Your task to perform on an android device: change timer sound Image 0: 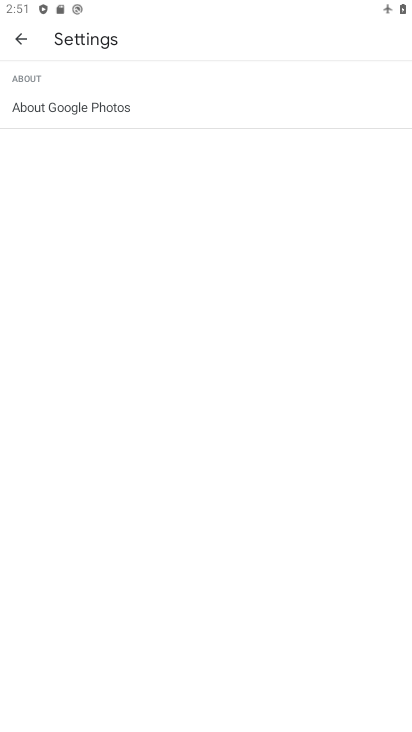
Step 0: press home button
Your task to perform on an android device: change timer sound Image 1: 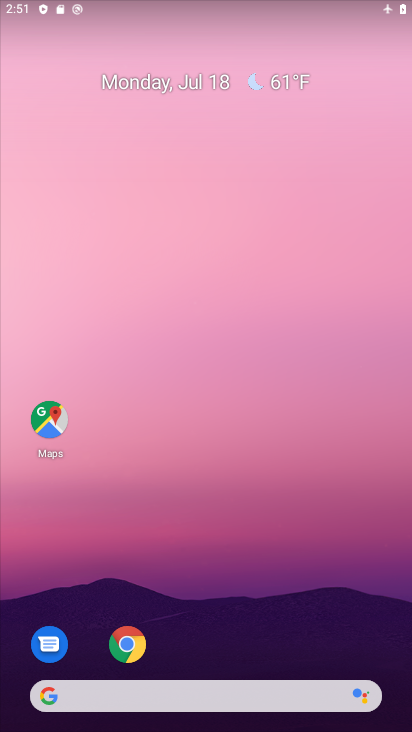
Step 1: drag from (330, 649) to (400, 168)
Your task to perform on an android device: change timer sound Image 2: 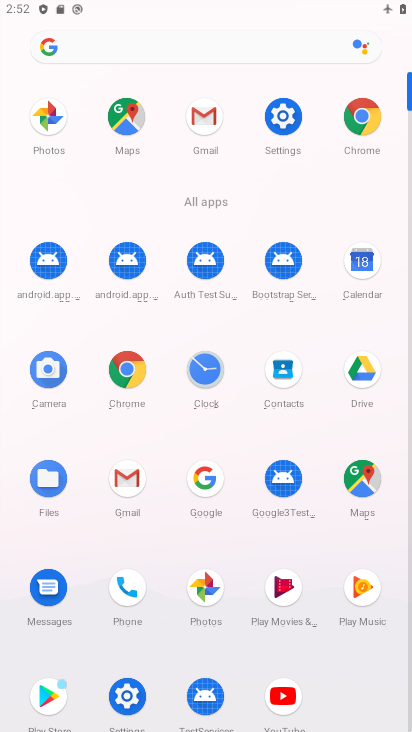
Step 2: click (213, 365)
Your task to perform on an android device: change timer sound Image 3: 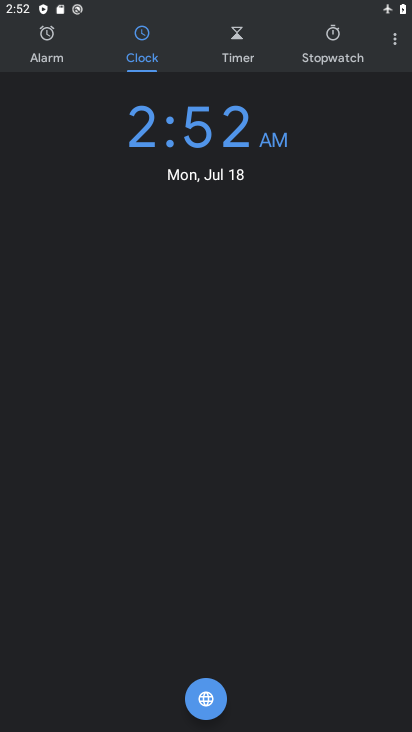
Step 3: click (396, 38)
Your task to perform on an android device: change timer sound Image 4: 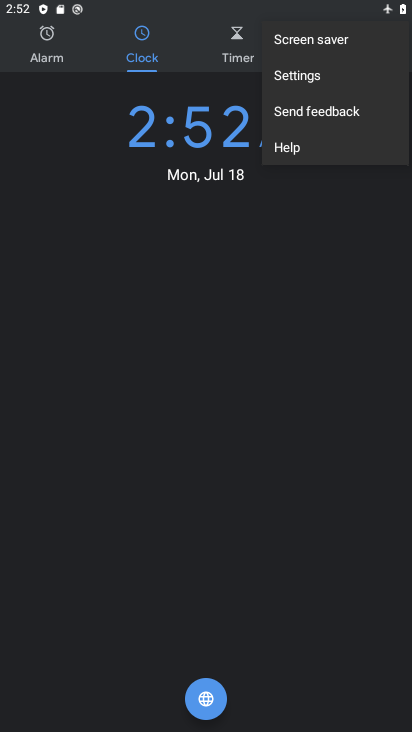
Step 4: click (293, 76)
Your task to perform on an android device: change timer sound Image 5: 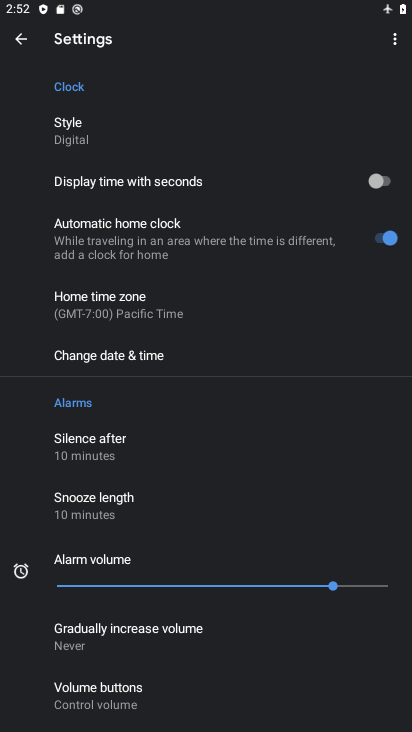
Step 5: drag from (204, 493) to (225, 36)
Your task to perform on an android device: change timer sound Image 6: 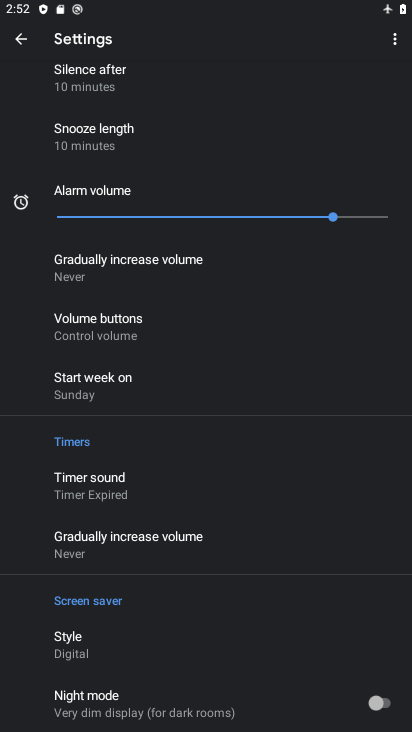
Step 6: click (81, 489)
Your task to perform on an android device: change timer sound Image 7: 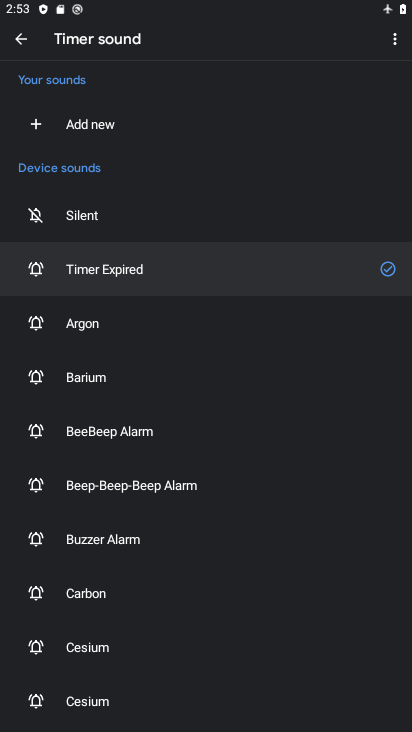
Step 7: click (98, 328)
Your task to perform on an android device: change timer sound Image 8: 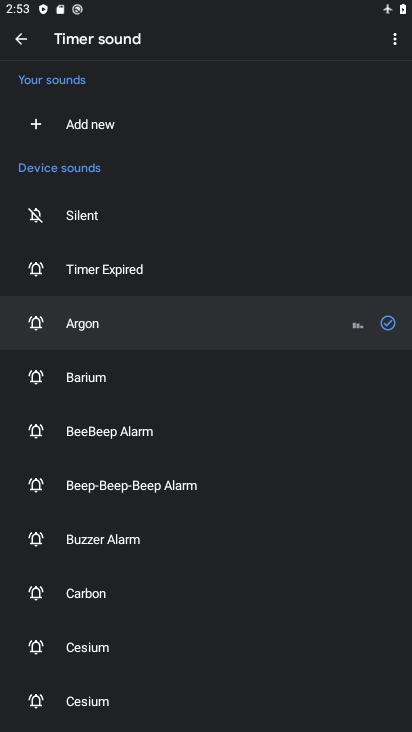
Step 8: task complete